Your task to perform on an android device: What's the weather going to be this weekend? Image 0: 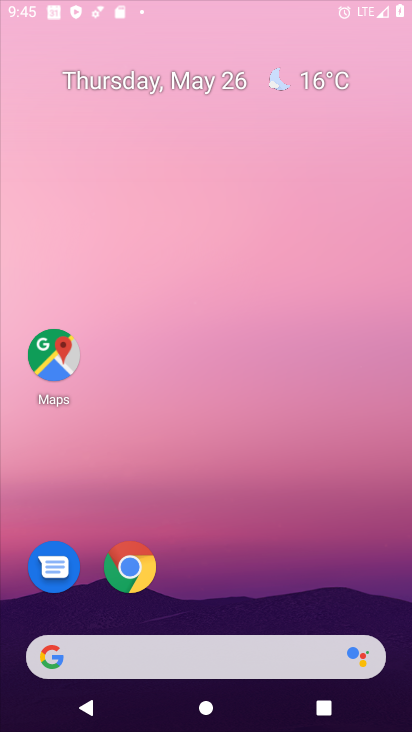
Step 0: click (345, 189)
Your task to perform on an android device: What's the weather going to be this weekend? Image 1: 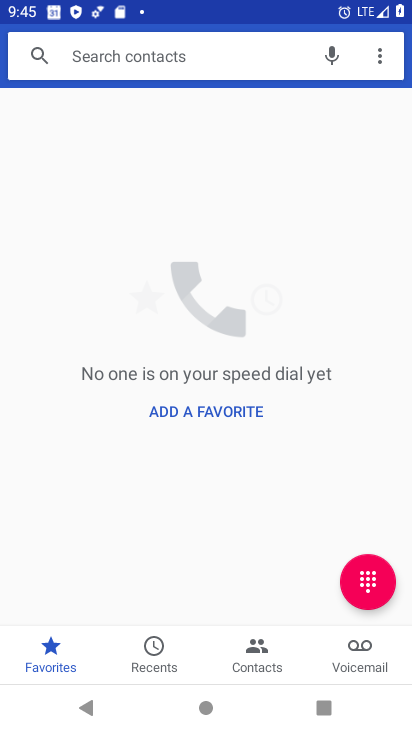
Step 1: press home button
Your task to perform on an android device: What's the weather going to be this weekend? Image 2: 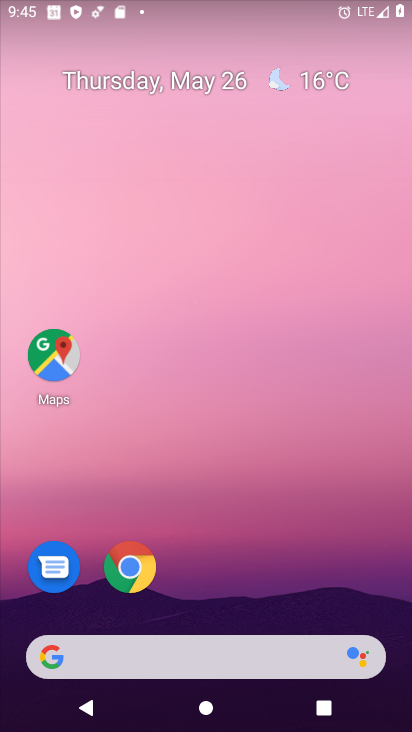
Step 2: drag from (399, 697) to (351, 141)
Your task to perform on an android device: What's the weather going to be this weekend? Image 3: 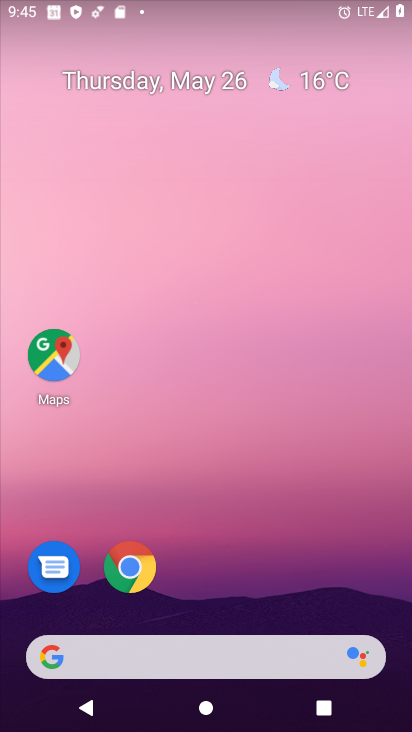
Step 3: drag from (400, 703) to (332, 39)
Your task to perform on an android device: What's the weather going to be this weekend? Image 4: 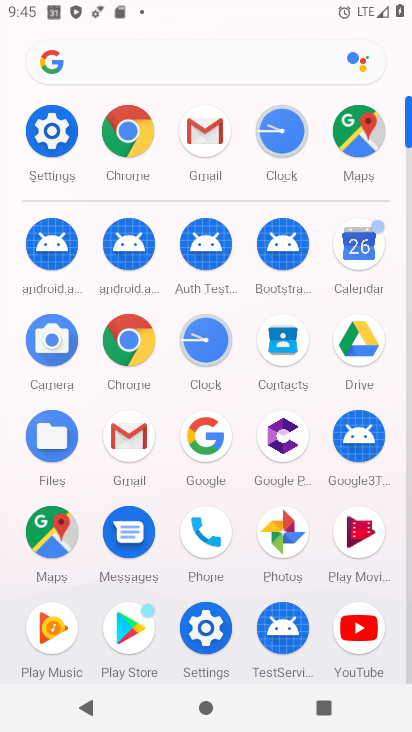
Step 4: click (206, 439)
Your task to perform on an android device: What's the weather going to be this weekend? Image 5: 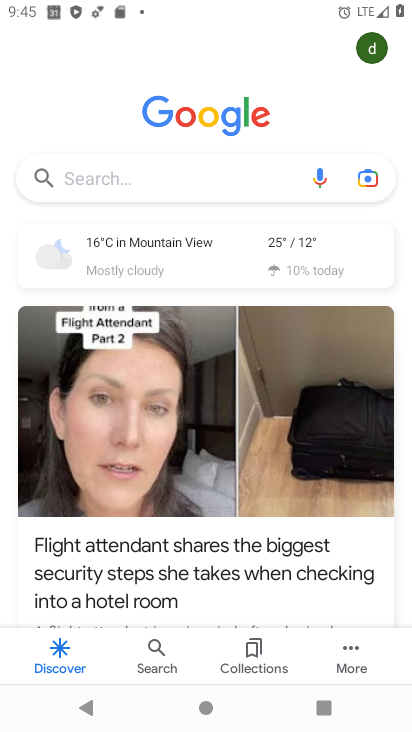
Step 5: click (286, 243)
Your task to perform on an android device: What's the weather going to be this weekend? Image 6: 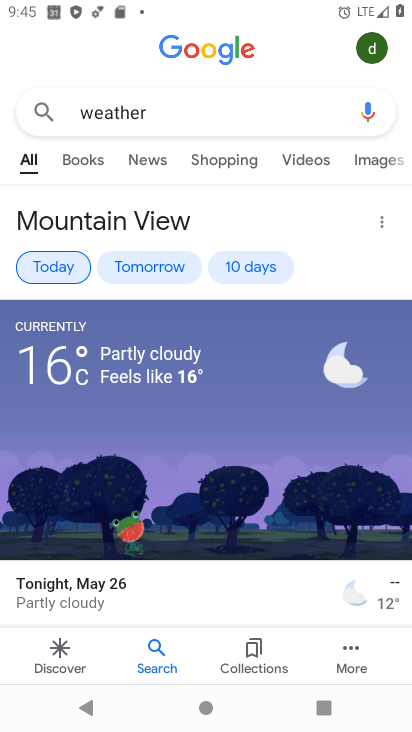
Step 6: click (238, 270)
Your task to perform on an android device: What's the weather going to be this weekend? Image 7: 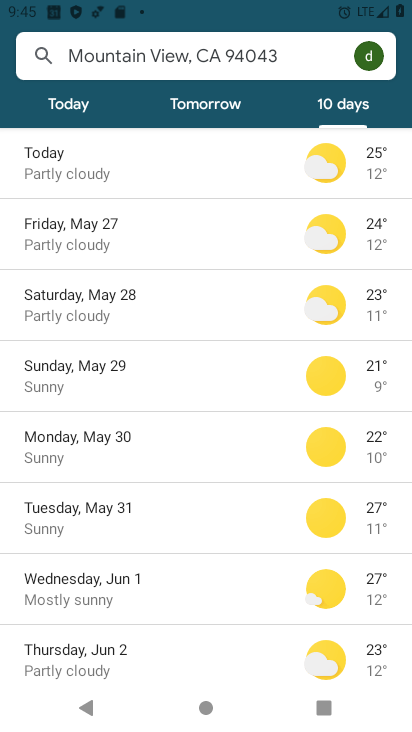
Step 7: task complete